Your task to perform on an android device: check the backup settings in the google photos Image 0: 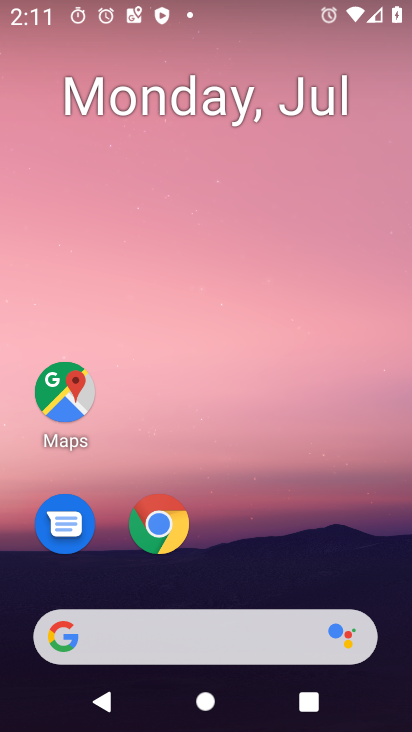
Step 0: press home button
Your task to perform on an android device: check the backup settings in the google photos Image 1: 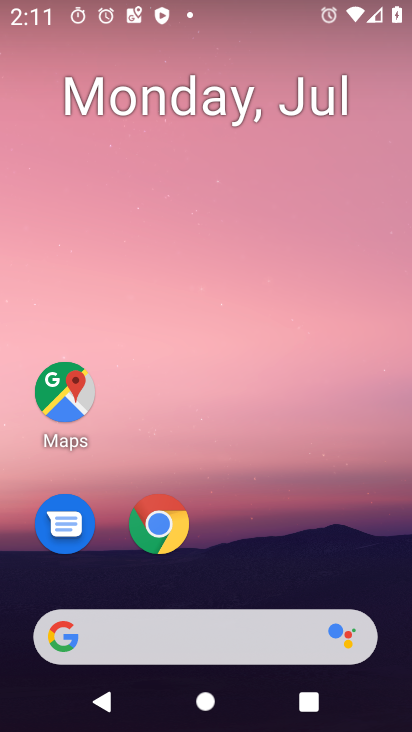
Step 1: drag from (267, 564) to (334, 4)
Your task to perform on an android device: check the backup settings in the google photos Image 2: 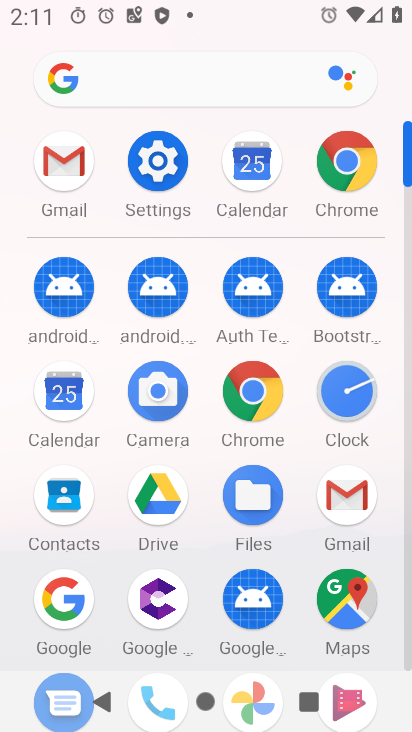
Step 2: drag from (383, 639) to (369, 203)
Your task to perform on an android device: check the backup settings in the google photos Image 3: 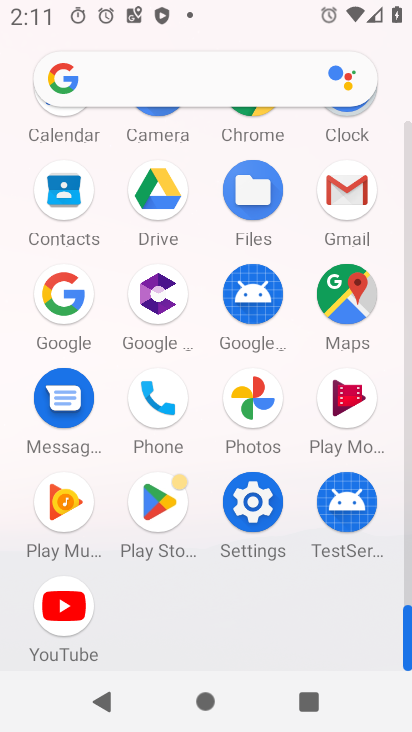
Step 3: click (249, 394)
Your task to perform on an android device: check the backup settings in the google photos Image 4: 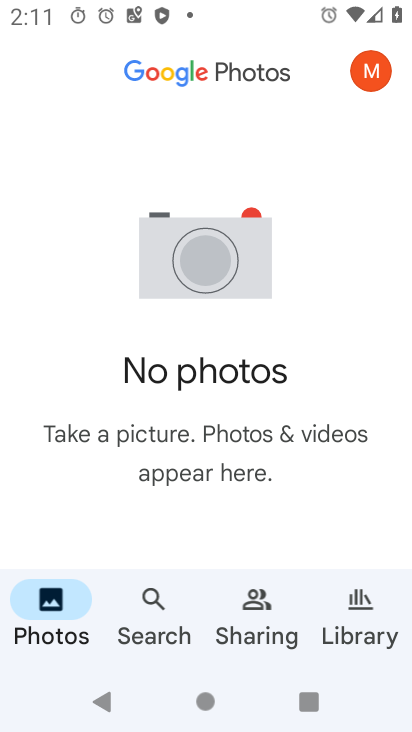
Step 4: click (372, 80)
Your task to perform on an android device: check the backup settings in the google photos Image 5: 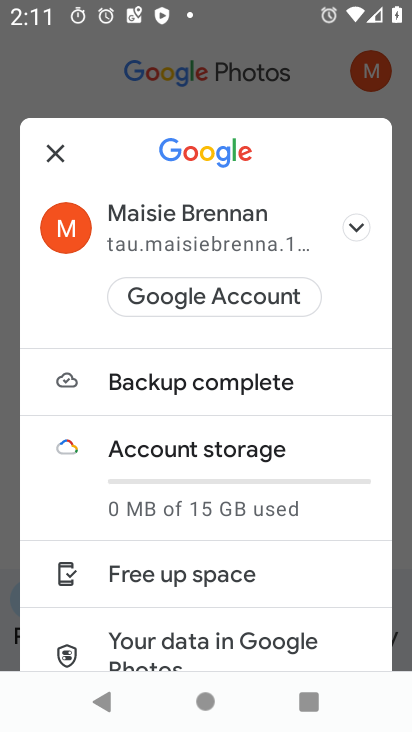
Step 5: drag from (363, 637) to (373, 223)
Your task to perform on an android device: check the backup settings in the google photos Image 6: 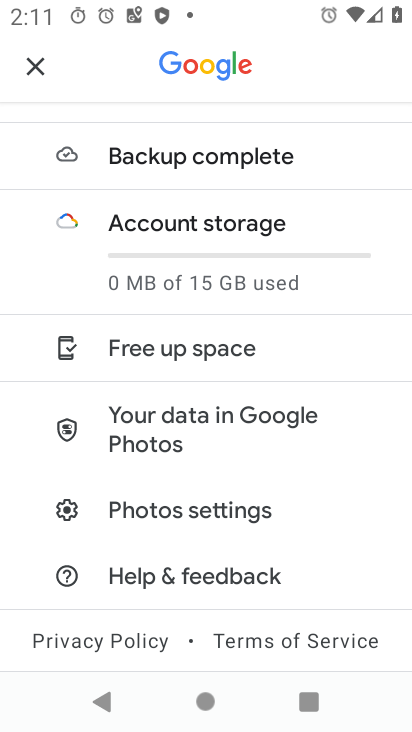
Step 6: click (190, 514)
Your task to perform on an android device: check the backup settings in the google photos Image 7: 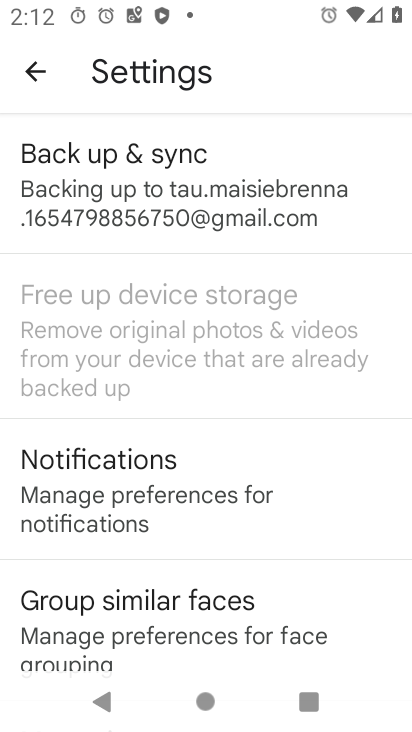
Step 7: click (112, 166)
Your task to perform on an android device: check the backup settings in the google photos Image 8: 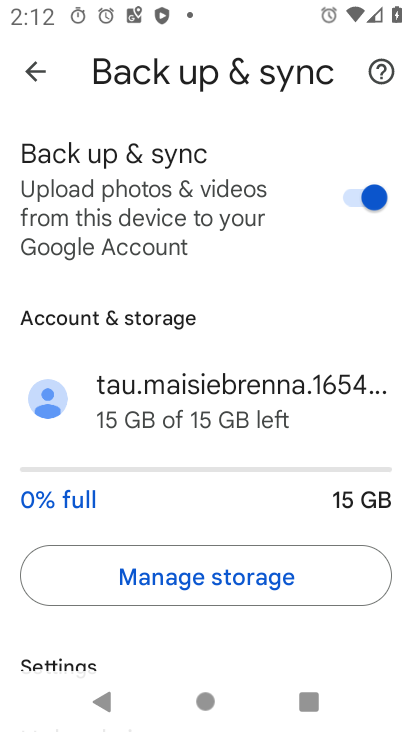
Step 8: task complete